Your task to perform on an android device: install app "Firefox Browser" Image 0: 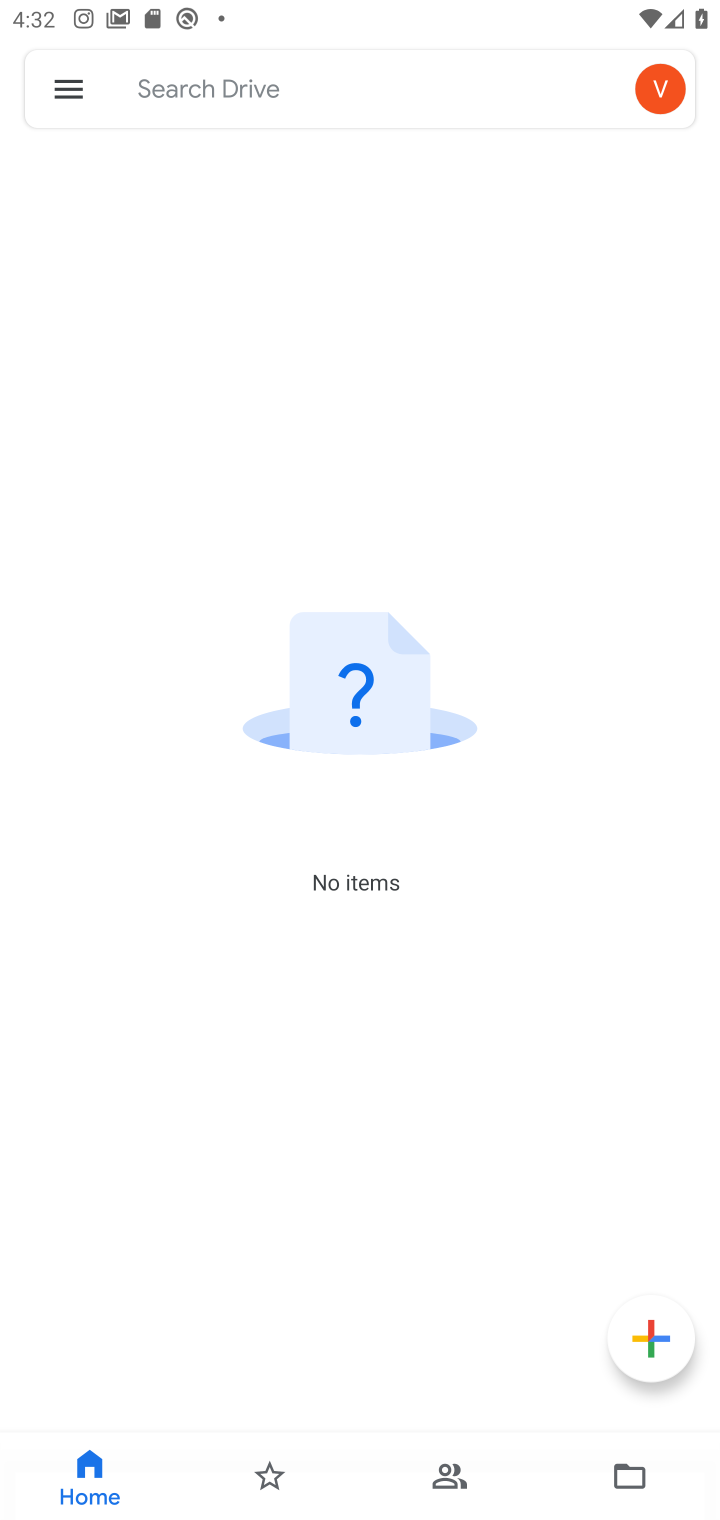
Step 0: press home button
Your task to perform on an android device: install app "Firefox Browser" Image 1: 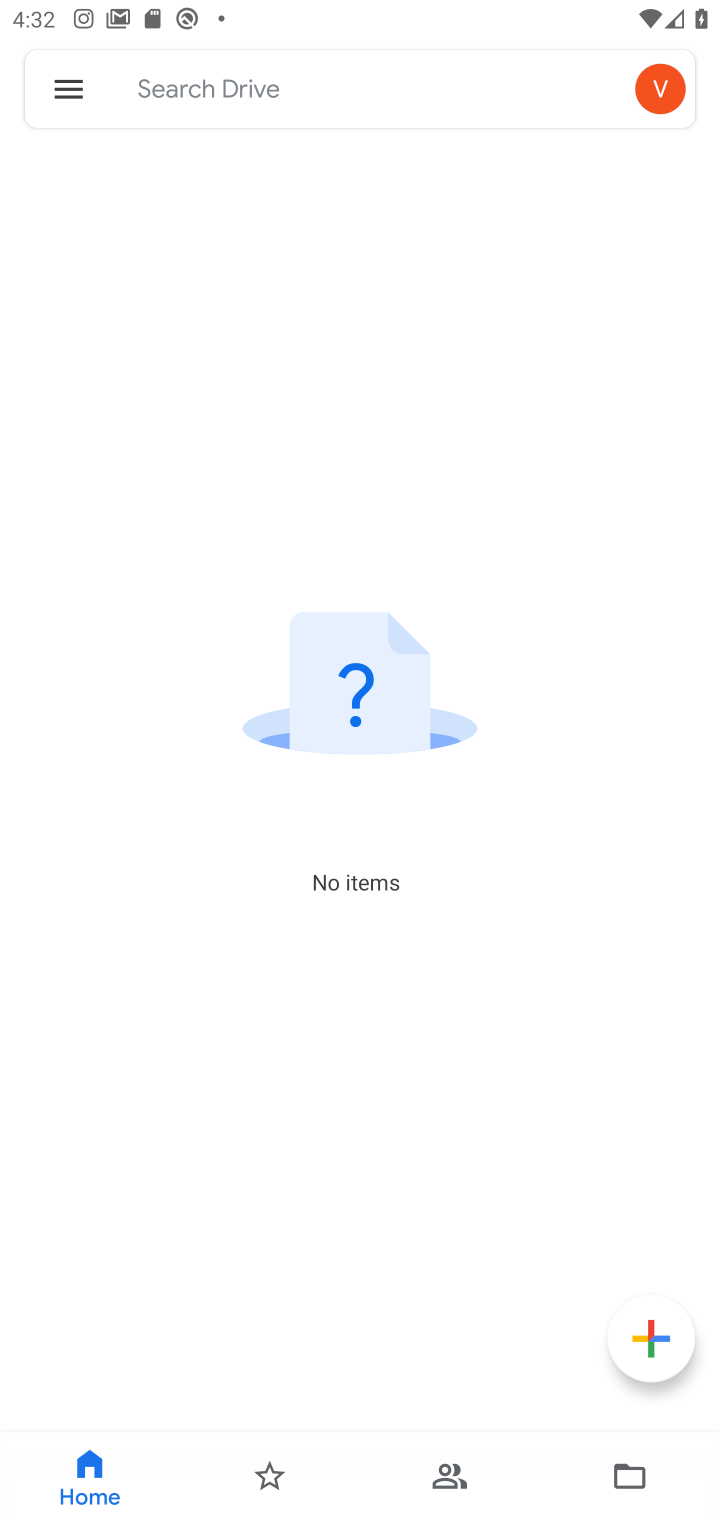
Step 1: press home button
Your task to perform on an android device: install app "Firefox Browser" Image 2: 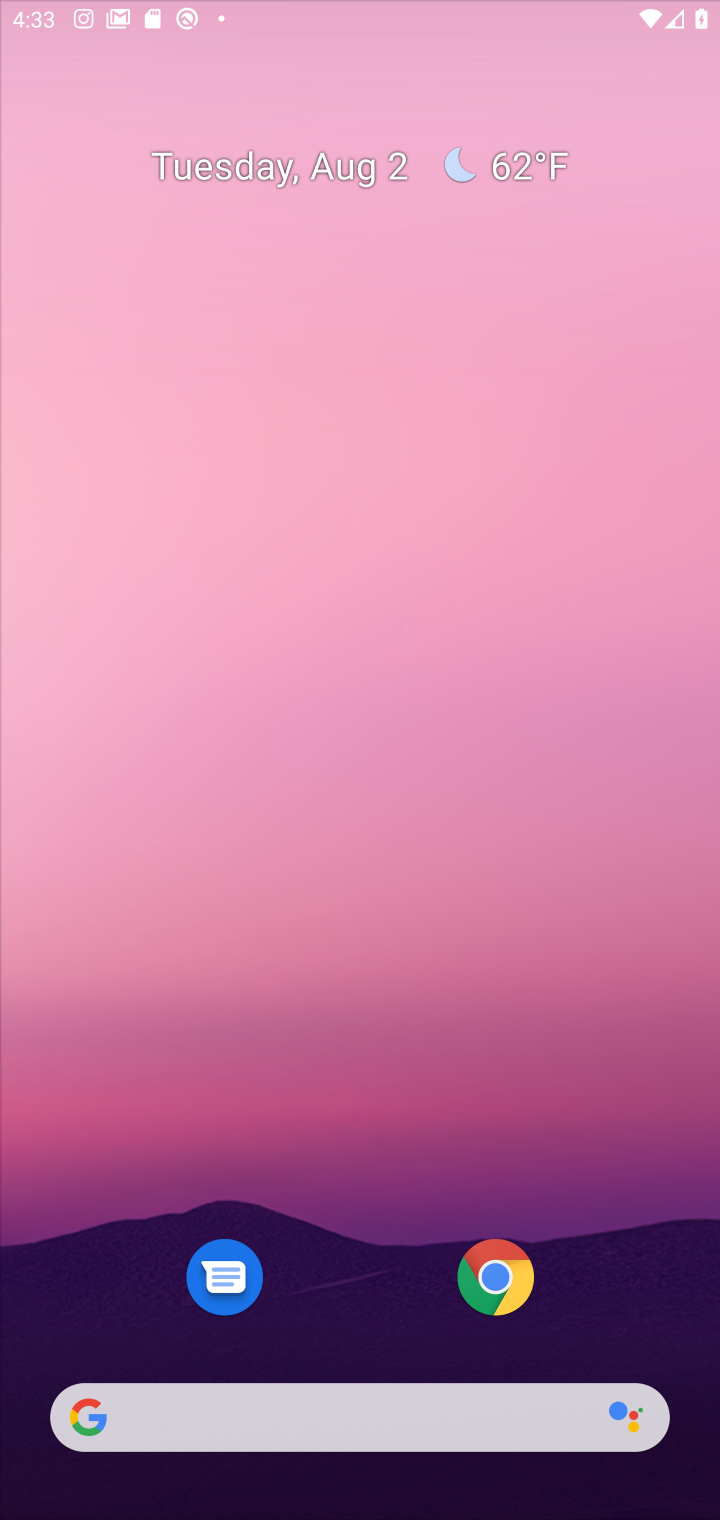
Step 2: press home button
Your task to perform on an android device: install app "Firefox Browser" Image 3: 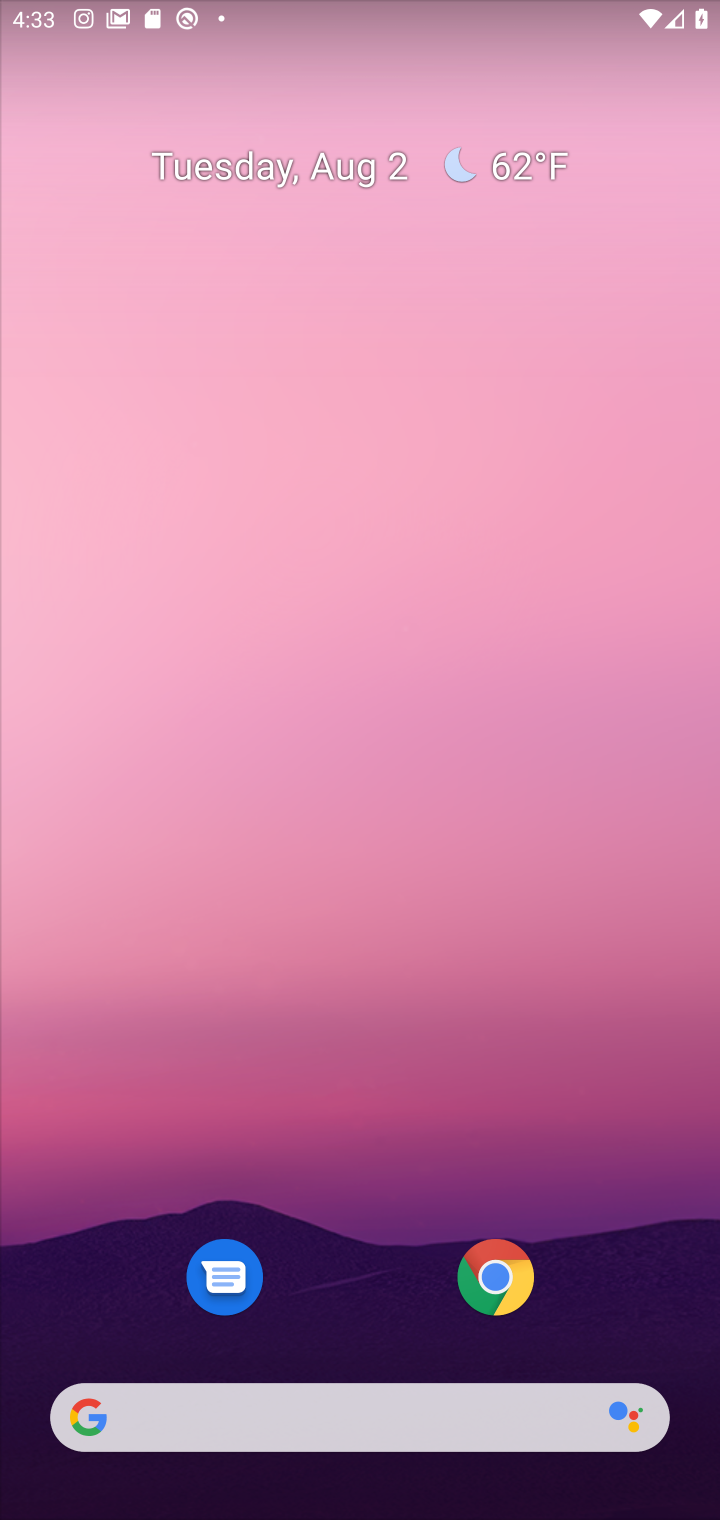
Step 3: drag from (582, 1176) to (491, 0)
Your task to perform on an android device: install app "Firefox Browser" Image 4: 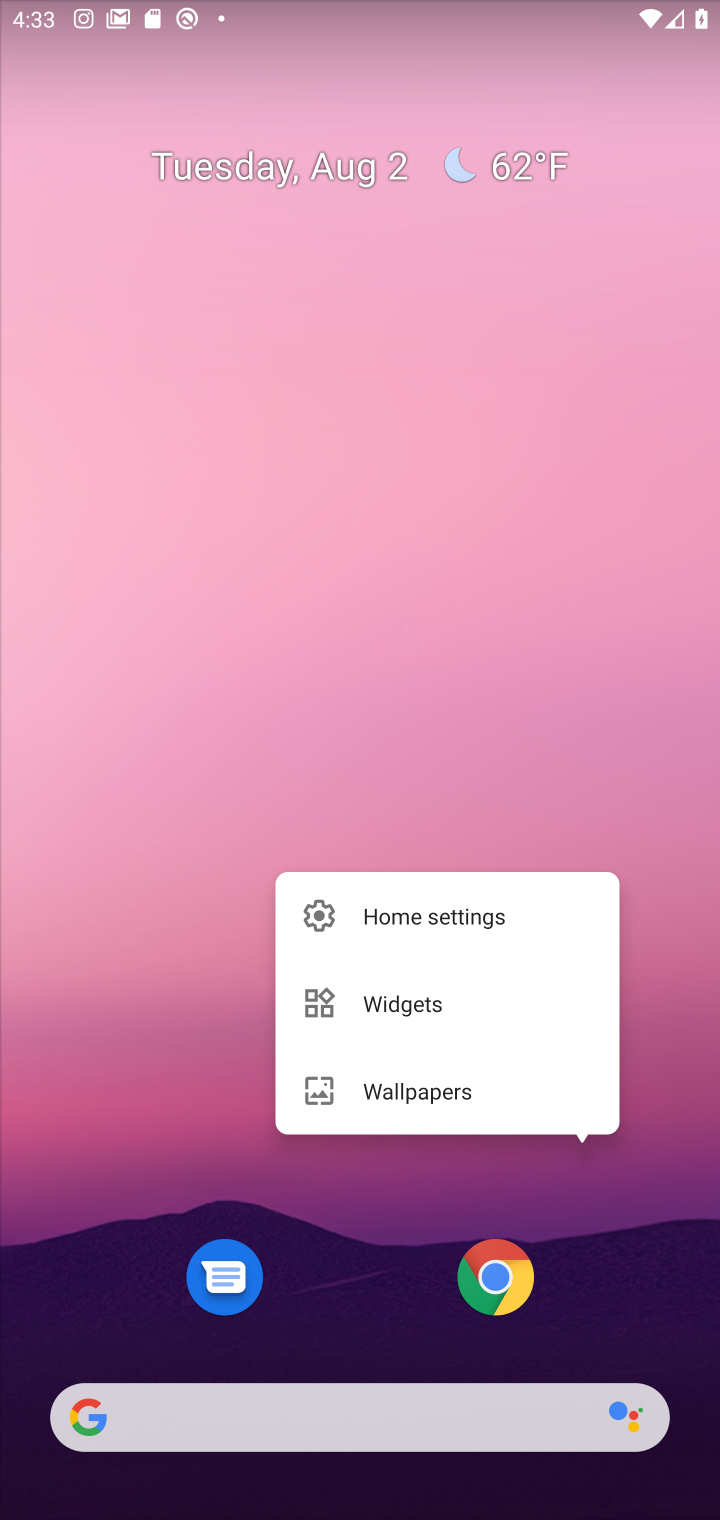
Step 4: click (584, 482)
Your task to perform on an android device: install app "Firefox Browser" Image 5: 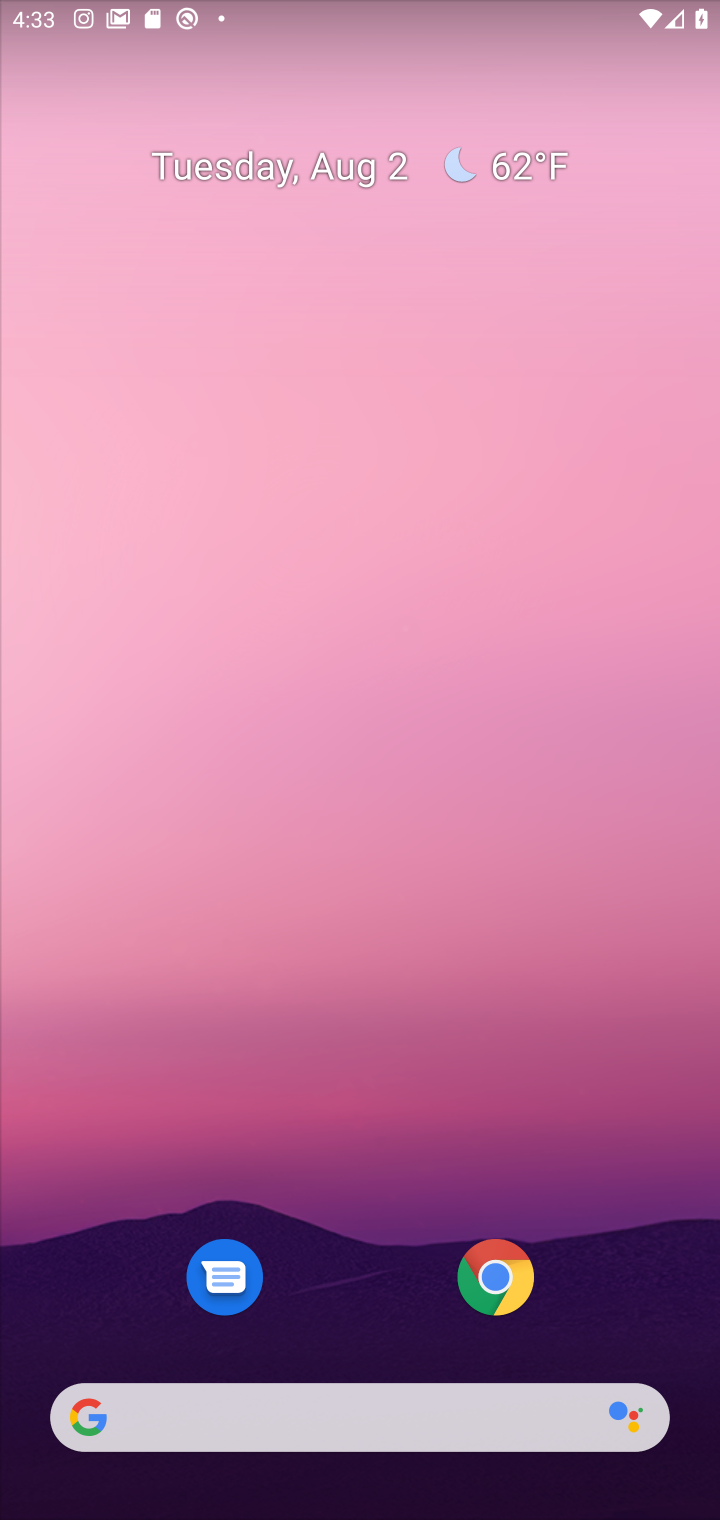
Step 5: drag from (575, 713) to (580, 244)
Your task to perform on an android device: install app "Firefox Browser" Image 6: 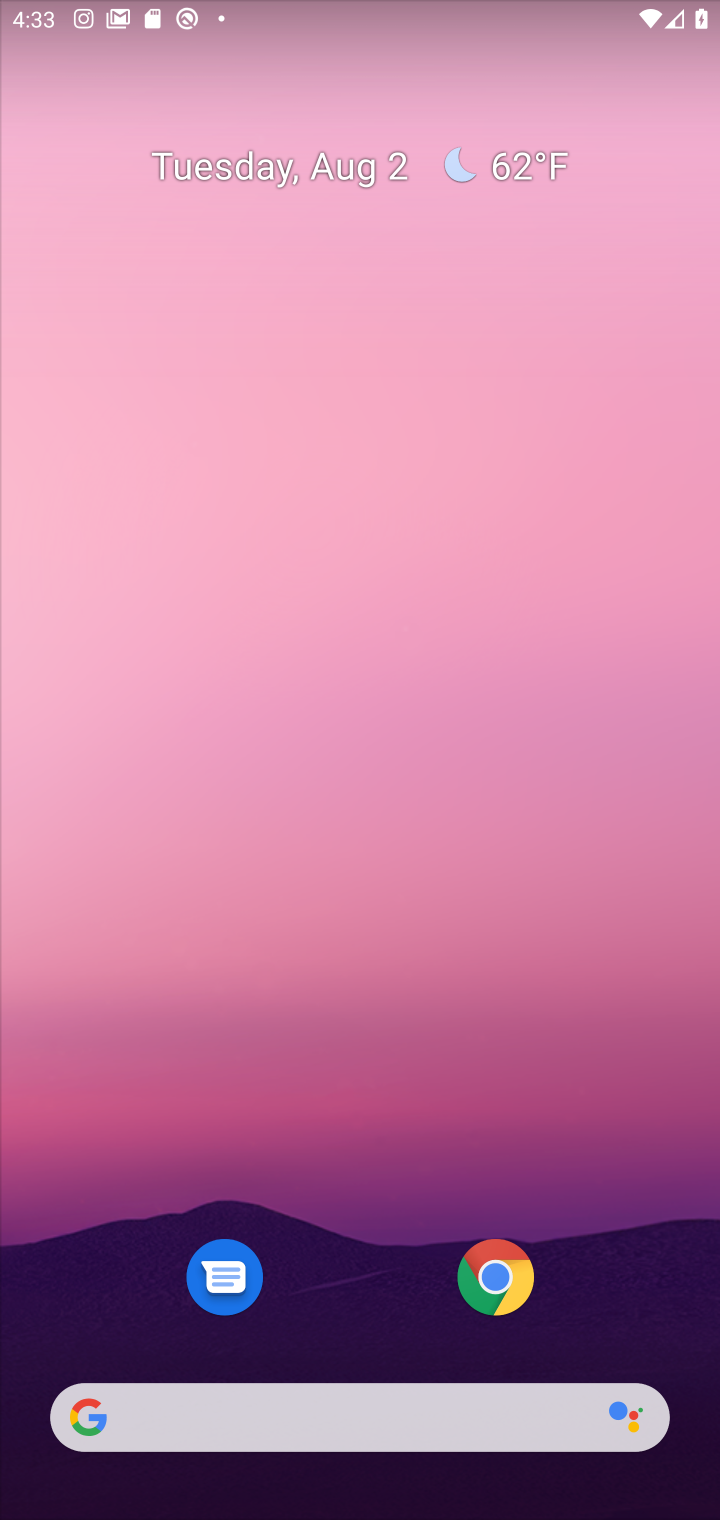
Step 6: drag from (619, 873) to (585, 144)
Your task to perform on an android device: install app "Firefox Browser" Image 7: 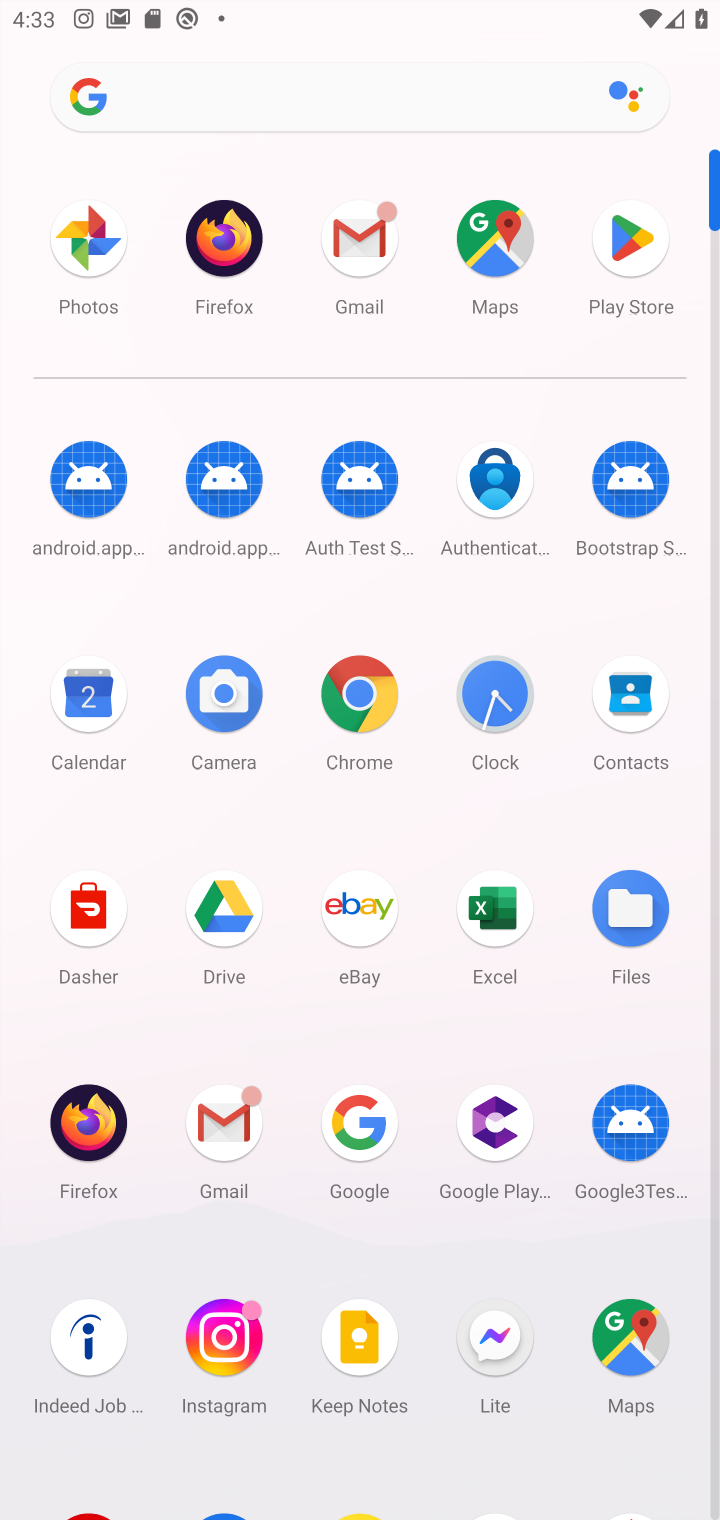
Step 7: drag from (425, 1240) to (512, 419)
Your task to perform on an android device: install app "Firefox Browser" Image 8: 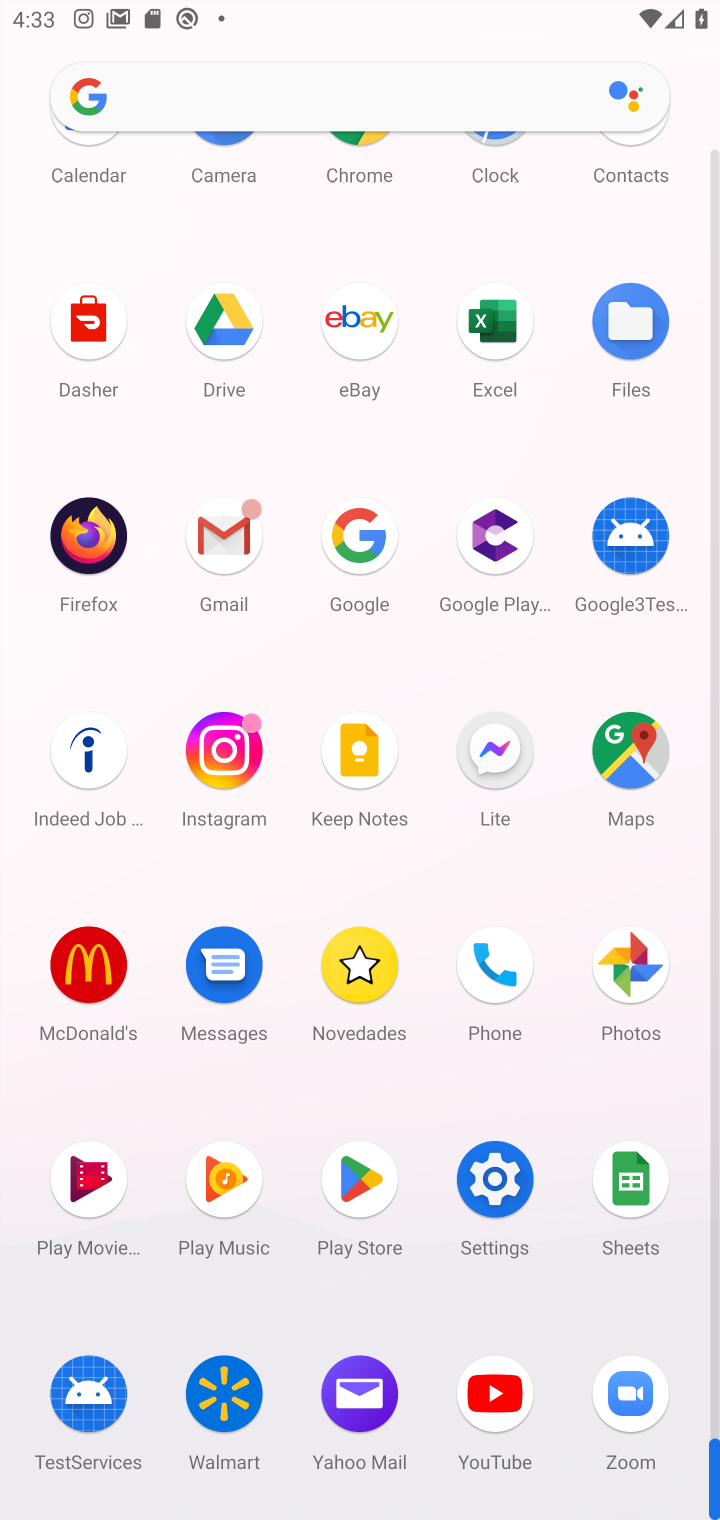
Step 8: click (373, 1194)
Your task to perform on an android device: install app "Firefox Browser" Image 9: 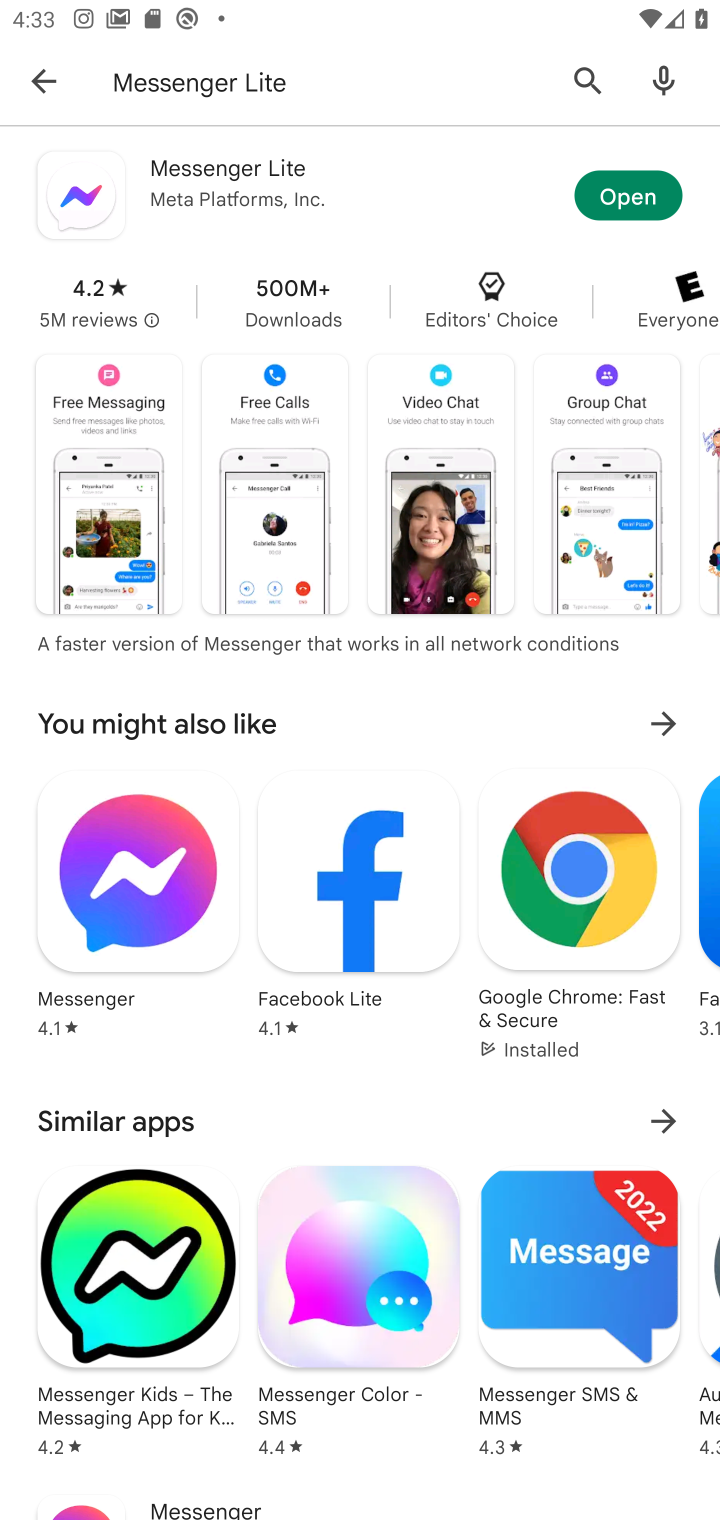
Step 9: click (323, 77)
Your task to perform on an android device: install app "Firefox Browser" Image 10: 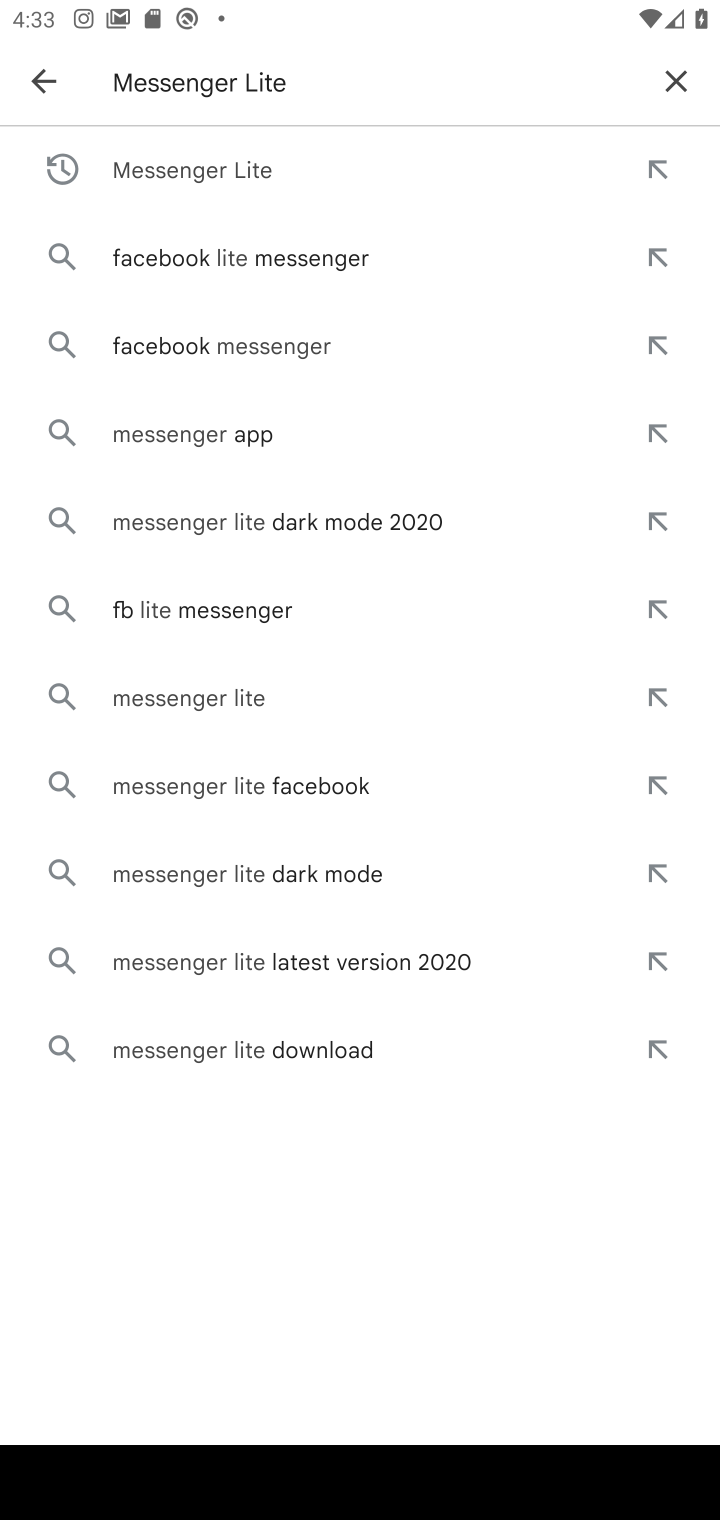
Step 10: click (693, 75)
Your task to perform on an android device: install app "Firefox Browser" Image 11: 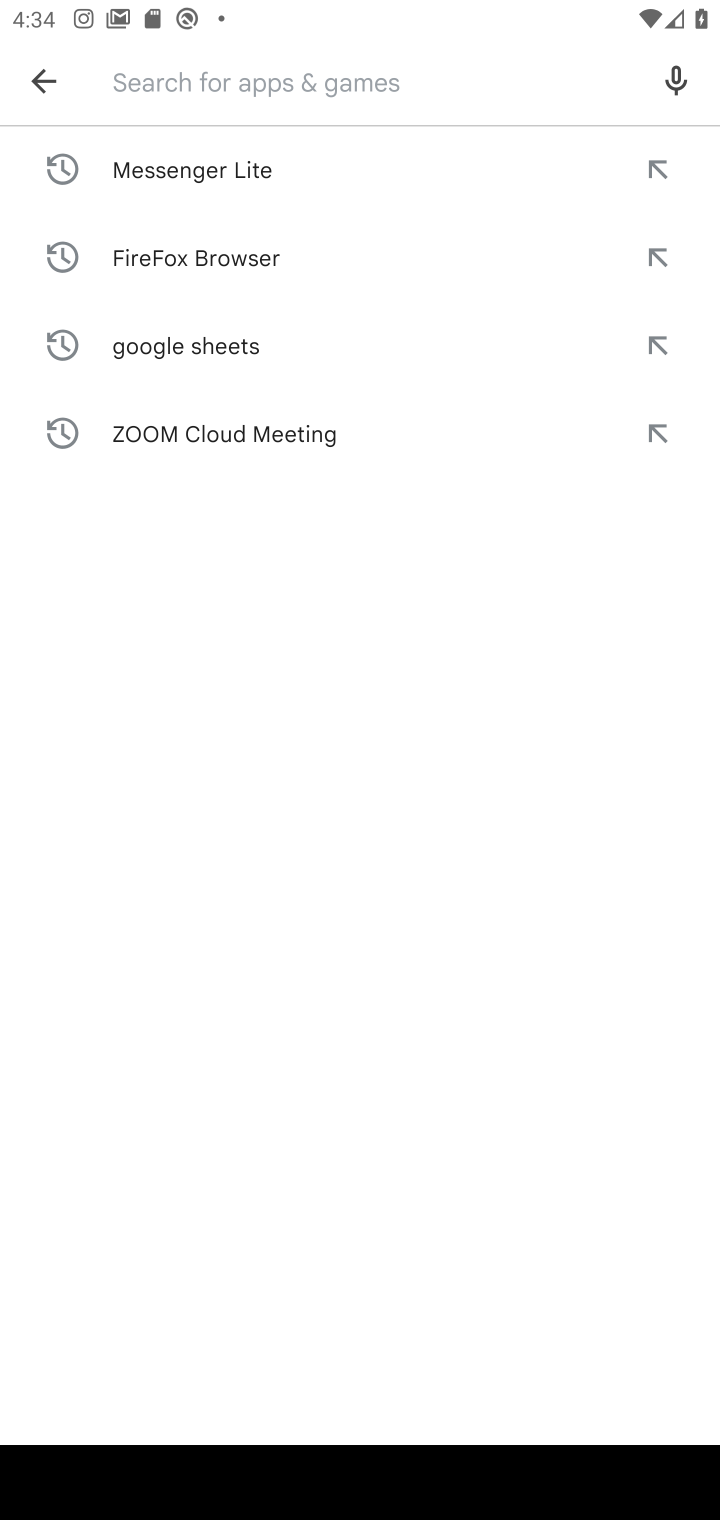
Step 11: type "Firefox Browser"
Your task to perform on an android device: install app "Firefox Browser" Image 12: 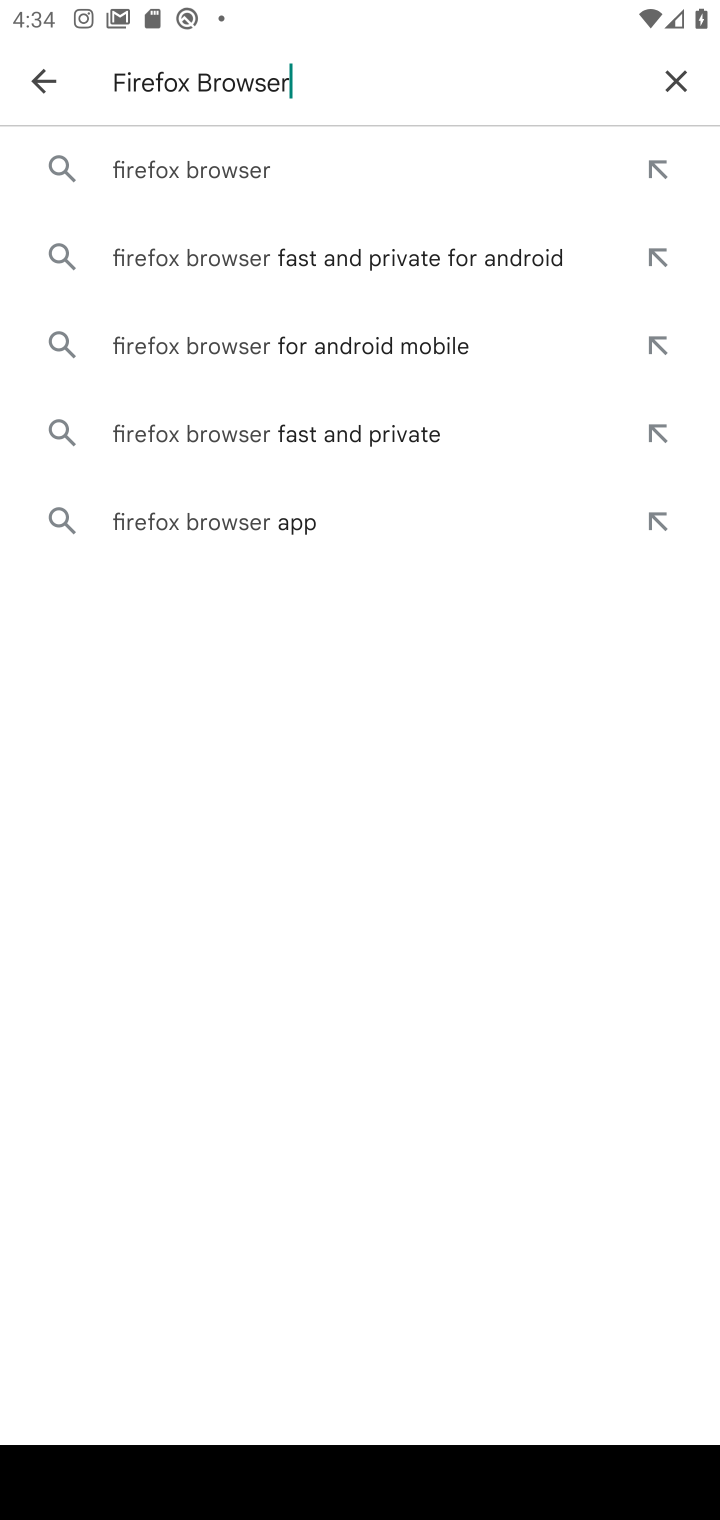
Step 12: press enter
Your task to perform on an android device: install app "Firefox Browser" Image 13: 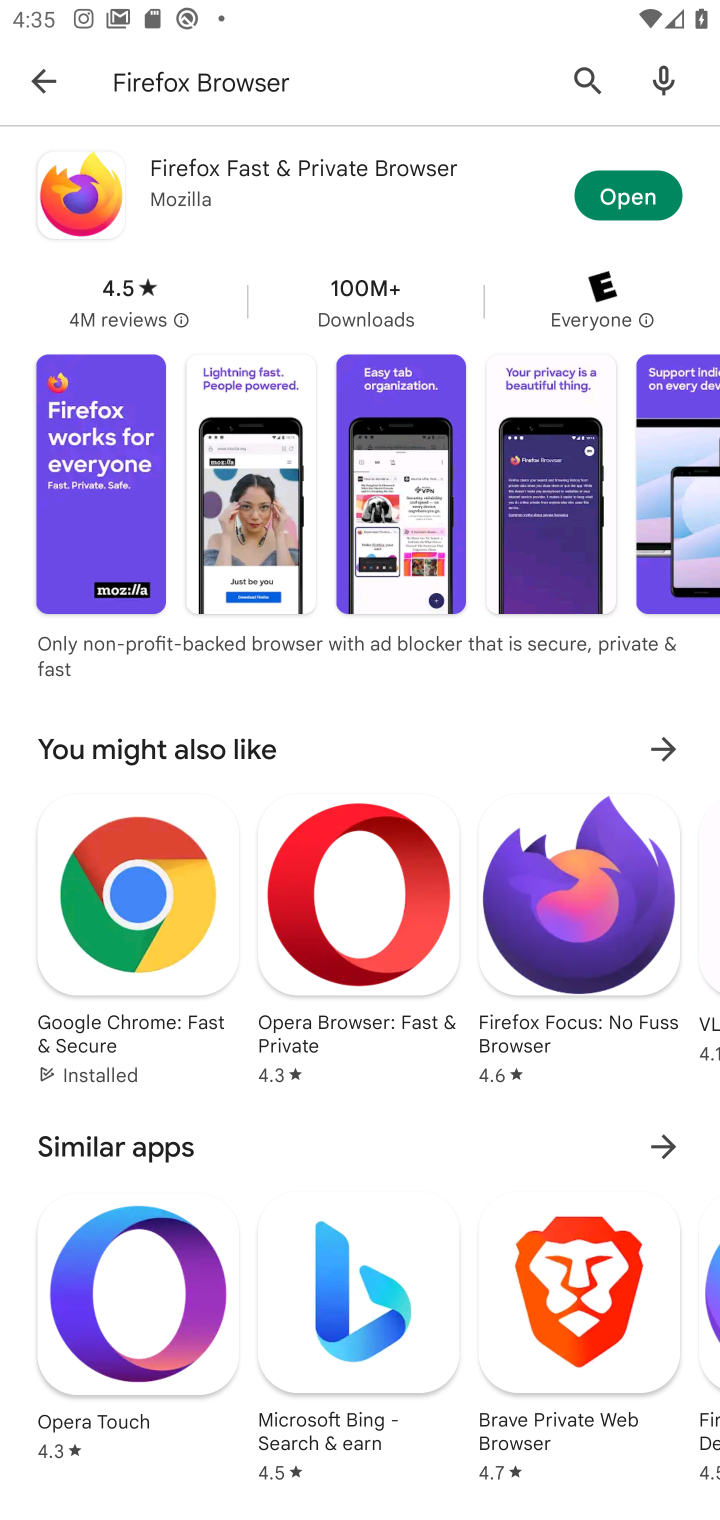
Step 13: click (323, 203)
Your task to perform on an android device: install app "Firefox Browser" Image 14: 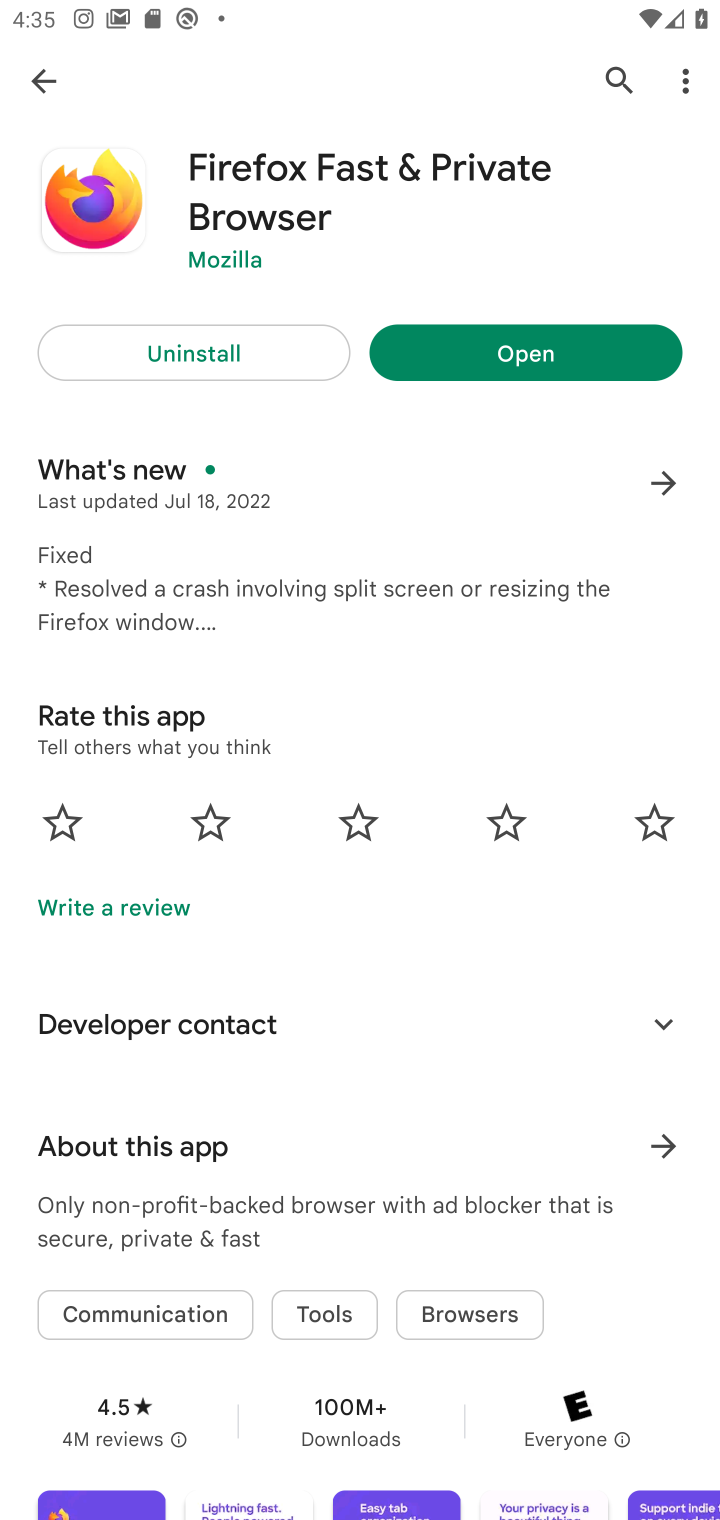
Step 14: task complete